Your task to perform on an android device: Where can I buy a nice beach bag? Image 0: 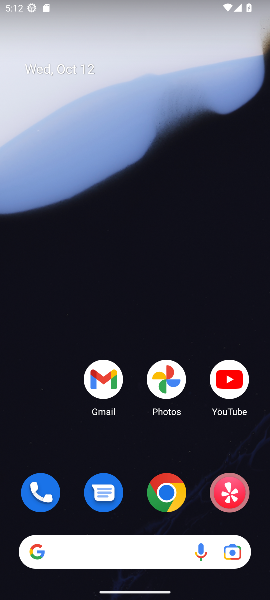
Step 0: click (169, 492)
Your task to perform on an android device: Where can I buy a nice beach bag? Image 1: 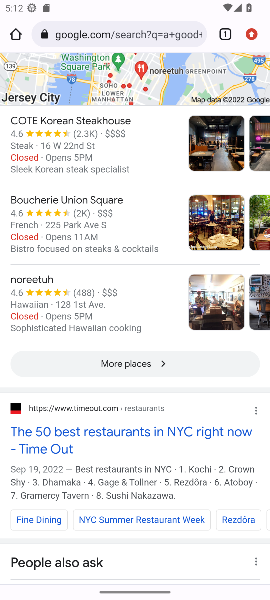
Step 1: click (83, 29)
Your task to perform on an android device: Where can I buy a nice beach bag? Image 2: 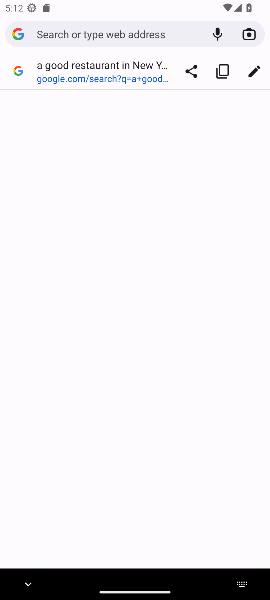
Step 2: type " beach bag"
Your task to perform on an android device: Where can I buy a nice beach bag? Image 3: 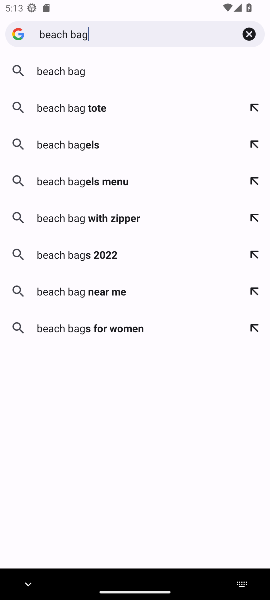
Step 3: click (77, 74)
Your task to perform on an android device: Where can I buy a nice beach bag? Image 4: 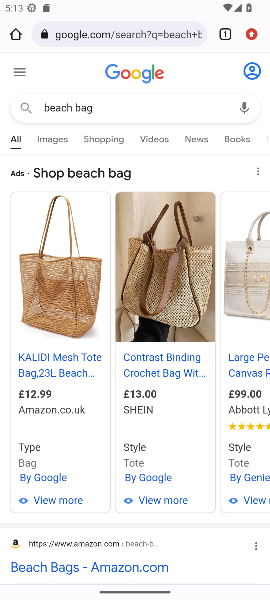
Step 4: task complete